Your task to perform on an android device: turn on notifications settings in the gmail app Image 0: 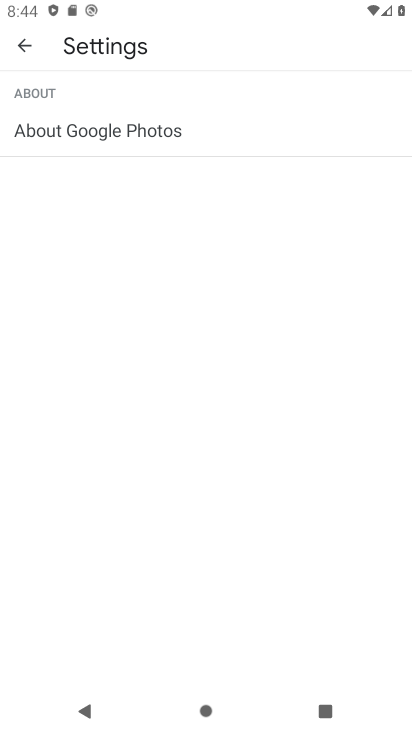
Step 0: press home button
Your task to perform on an android device: turn on notifications settings in the gmail app Image 1: 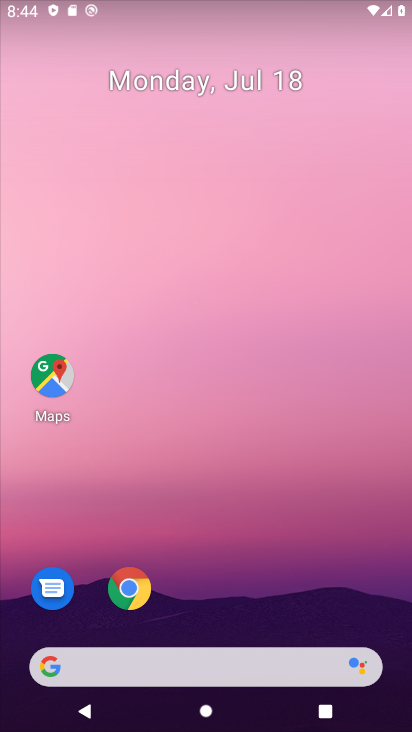
Step 1: drag from (270, 639) to (260, 130)
Your task to perform on an android device: turn on notifications settings in the gmail app Image 2: 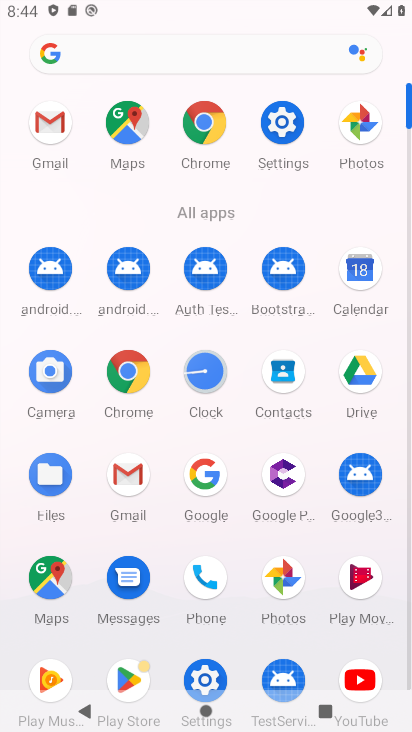
Step 2: click (111, 472)
Your task to perform on an android device: turn on notifications settings in the gmail app Image 3: 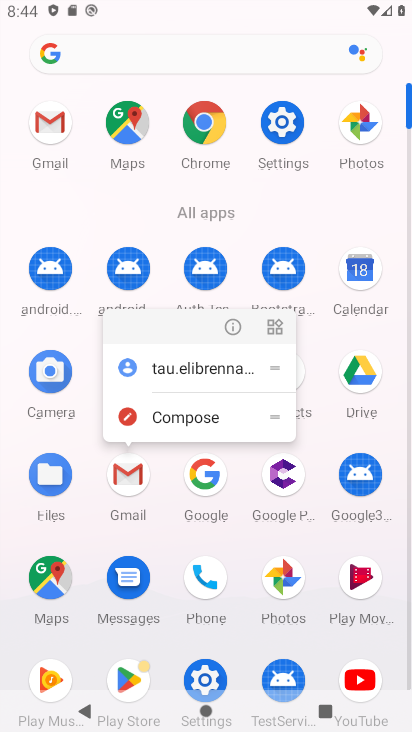
Step 3: click (241, 334)
Your task to perform on an android device: turn on notifications settings in the gmail app Image 4: 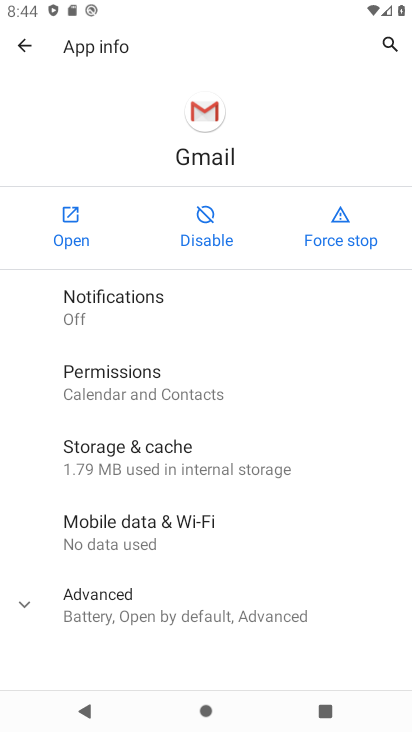
Step 4: click (68, 304)
Your task to perform on an android device: turn on notifications settings in the gmail app Image 5: 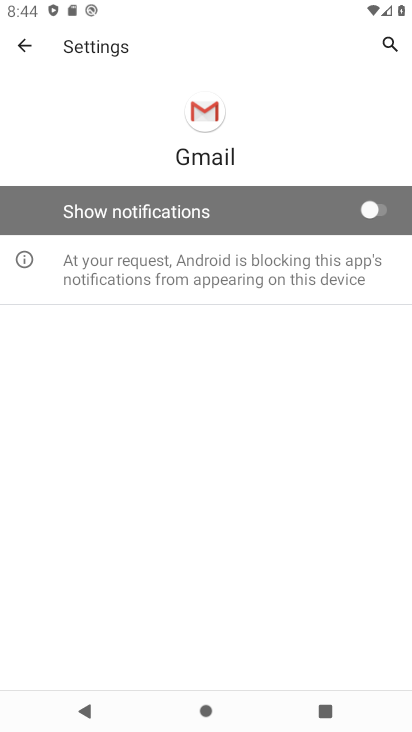
Step 5: click (193, 220)
Your task to perform on an android device: turn on notifications settings in the gmail app Image 6: 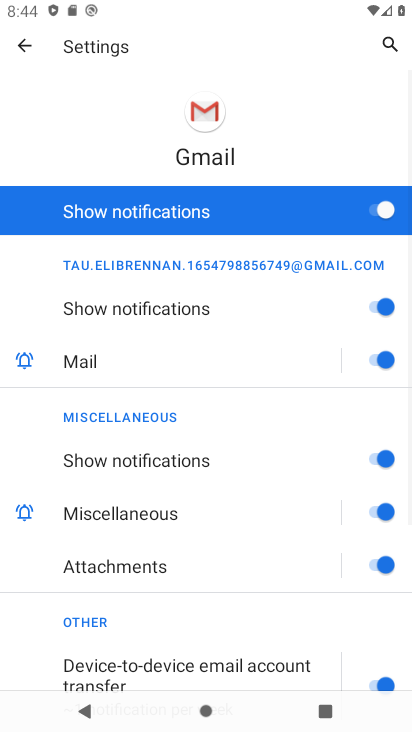
Step 6: task complete